Your task to perform on an android device: check storage Image 0: 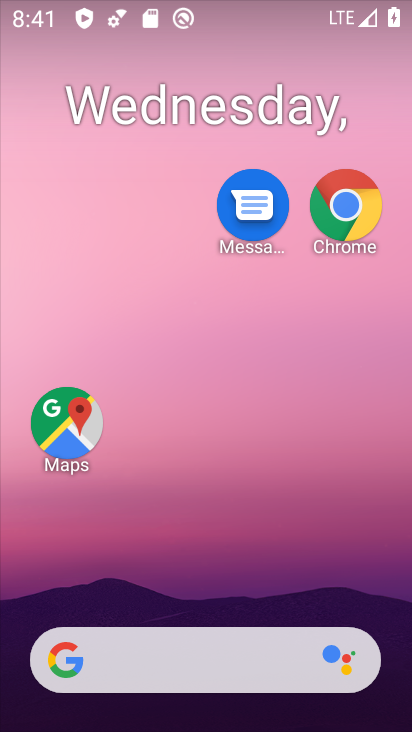
Step 0: drag from (191, 603) to (188, 134)
Your task to perform on an android device: check storage Image 1: 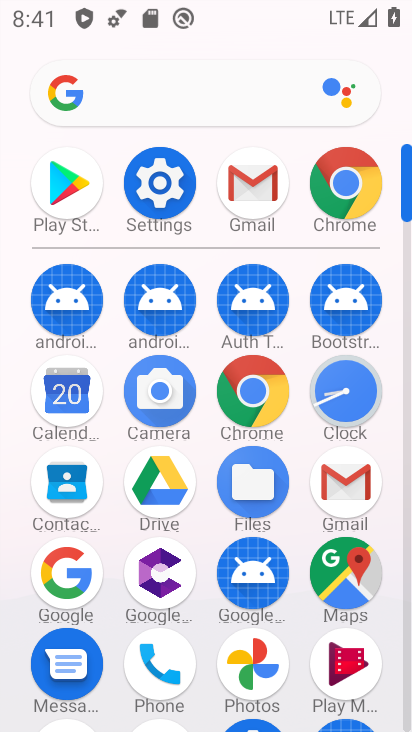
Step 1: click (145, 199)
Your task to perform on an android device: check storage Image 2: 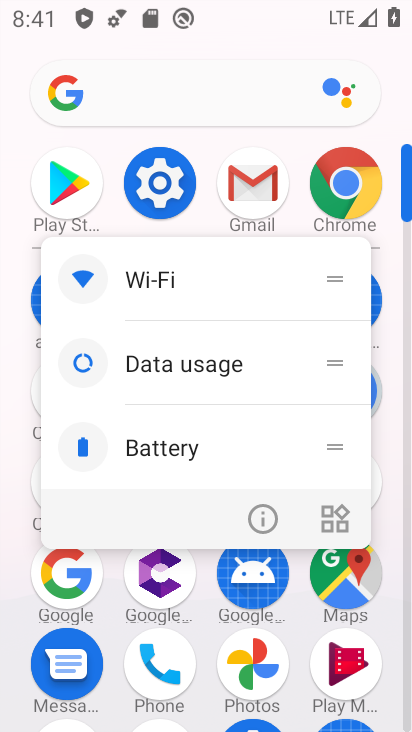
Step 2: click (267, 517)
Your task to perform on an android device: check storage Image 3: 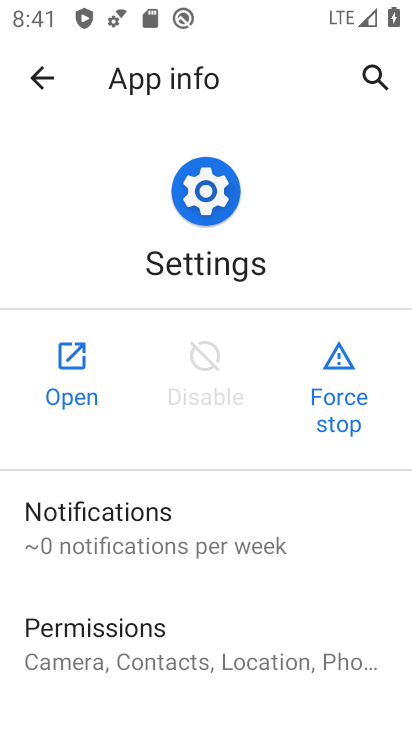
Step 3: click (95, 366)
Your task to perform on an android device: check storage Image 4: 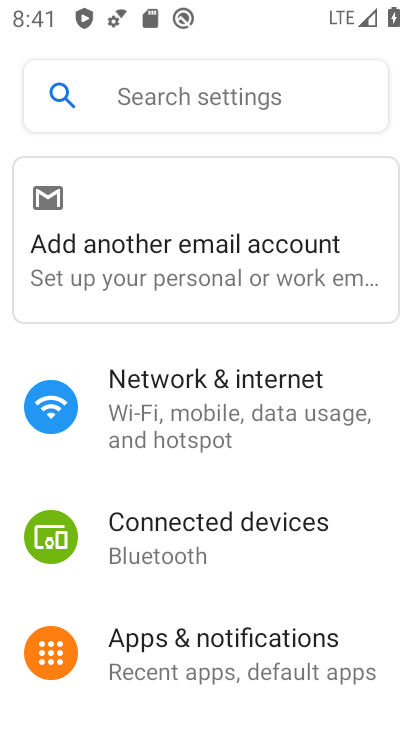
Step 4: drag from (235, 655) to (343, 30)
Your task to perform on an android device: check storage Image 5: 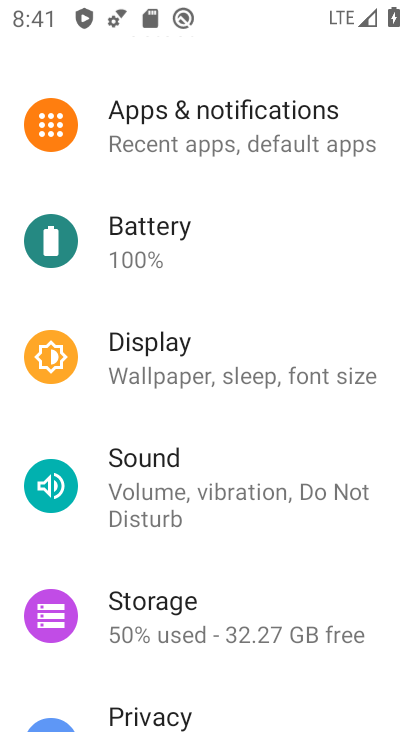
Step 5: click (139, 603)
Your task to perform on an android device: check storage Image 6: 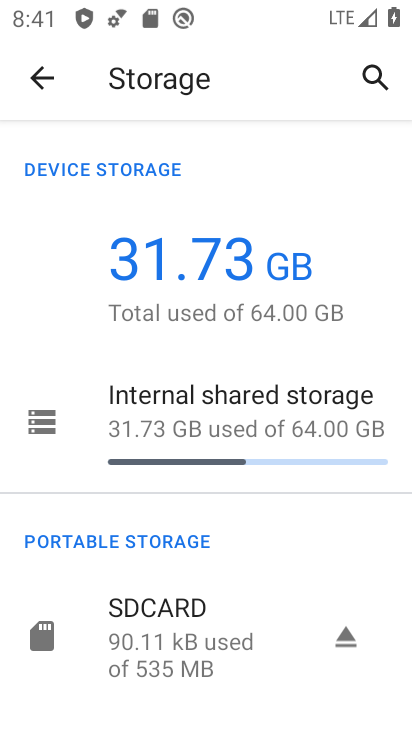
Step 6: task complete